Your task to perform on an android device: Open my contact list Image 0: 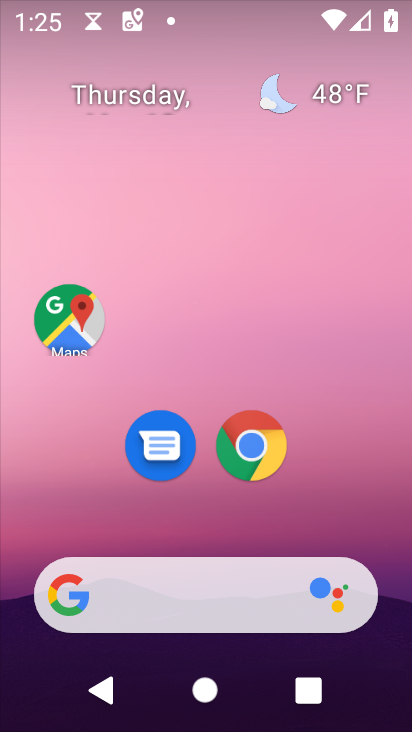
Step 0: drag from (305, 317) to (305, 5)
Your task to perform on an android device: Open my contact list Image 1: 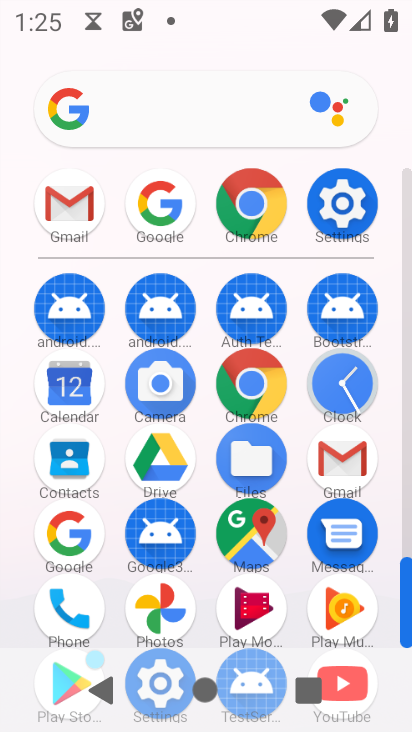
Step 1: drag from (207, 549) to (209, 323)
Your task to perform on an android device: Open my contact list Image 2: 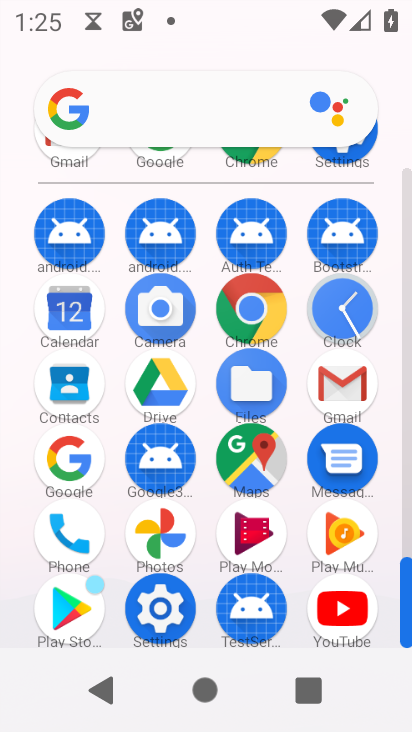
Step 2: drag from (207, 336) to (192, 530)
Your task to perform on an android device: Open my contact list Image 3: 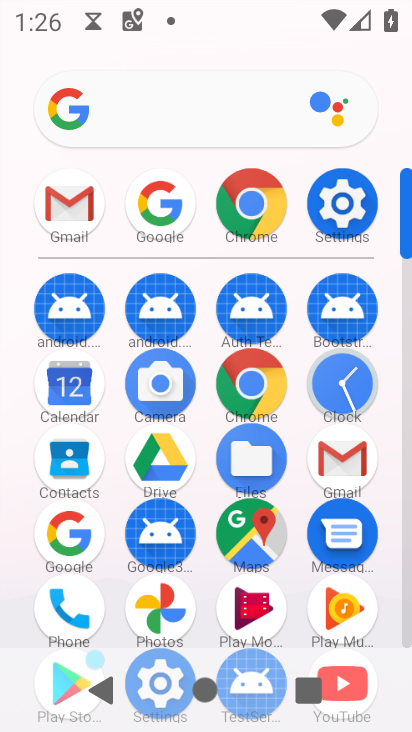
Step 3: click (66, 451)
Your task to perform on an android device: Open my contact list Image 4: 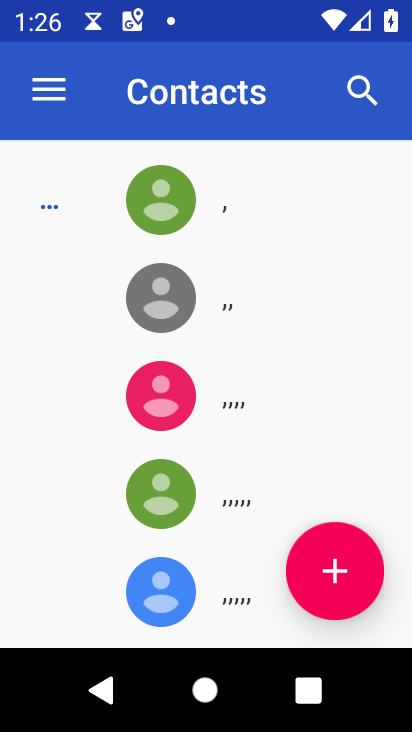
Step 4: task complete